Your task to perform on an android device: Go to accessibility settings Image 0: 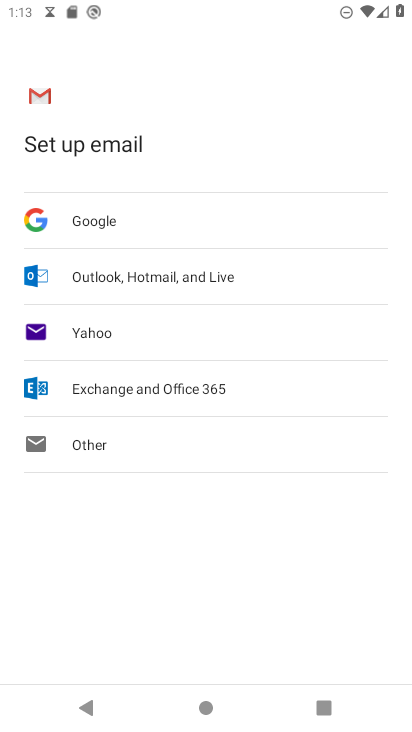
Step 0: press back button
Your task to perform on an android device: Go to accessibility settings Image 1: 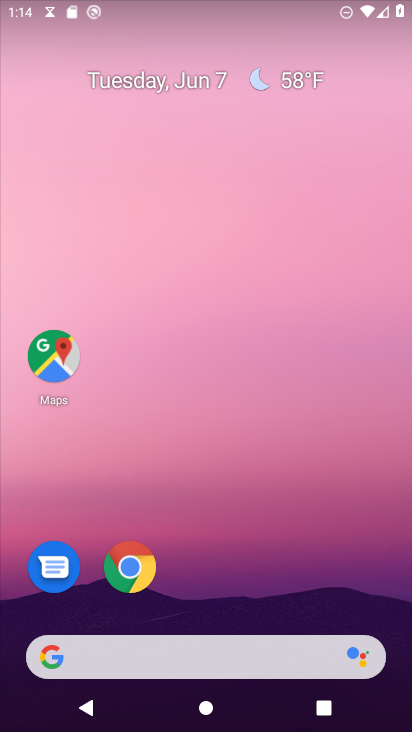
Step 1: drag from (404, 714) to (342, 2)
Your task to perform on an android device: Go to accessibility settings Image 2: 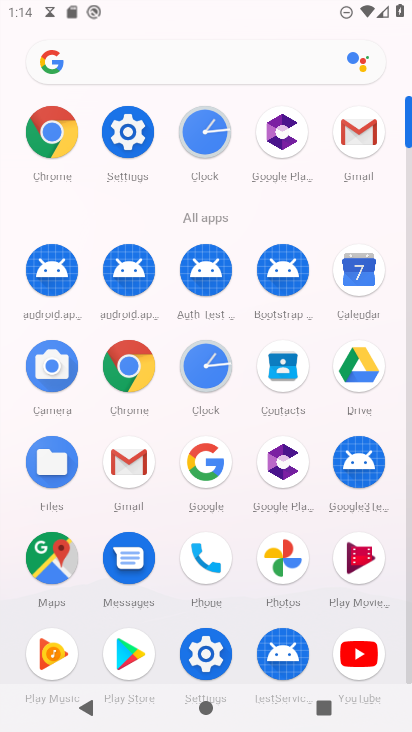
Step 2: click (213, 646)
Your task to perform on an android device: Go to accessibility settings Image 3: 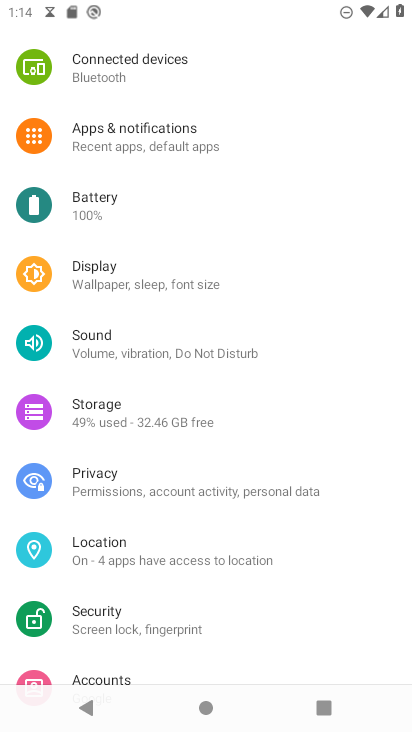
Step 3: click (292, 245)
Your task to perform on an android device: Go to accessibility settings Image 4: 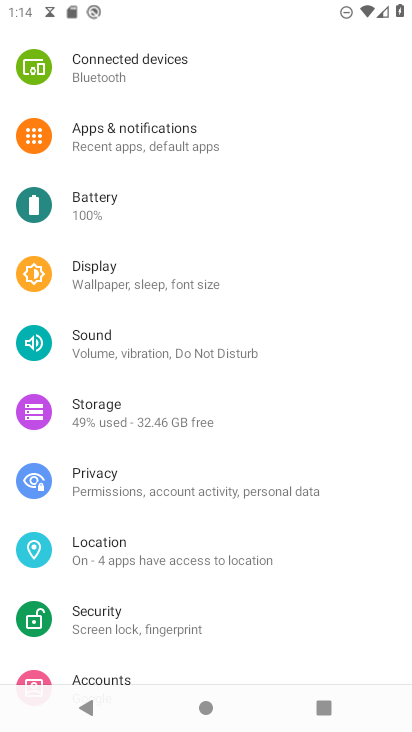
Step 4: drag from (324, 655) to (348, 271)
Your task to perform on an android device: Go to accessibility settings Image 5: 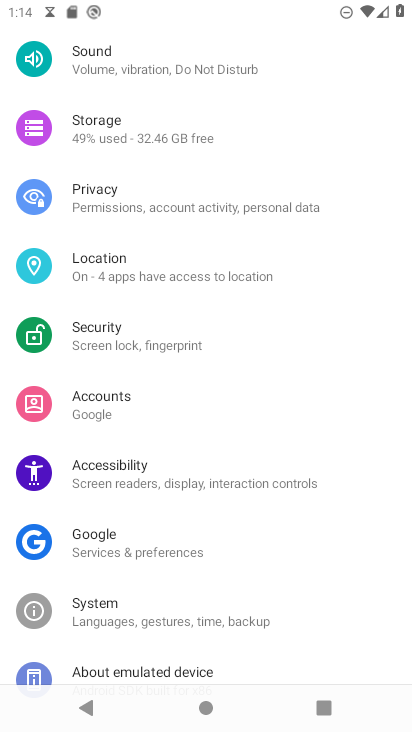
Step 5: drag from (347, 632) to (312, 140)
Your task to perform on an android device: Go to accessibility settings Image 6: 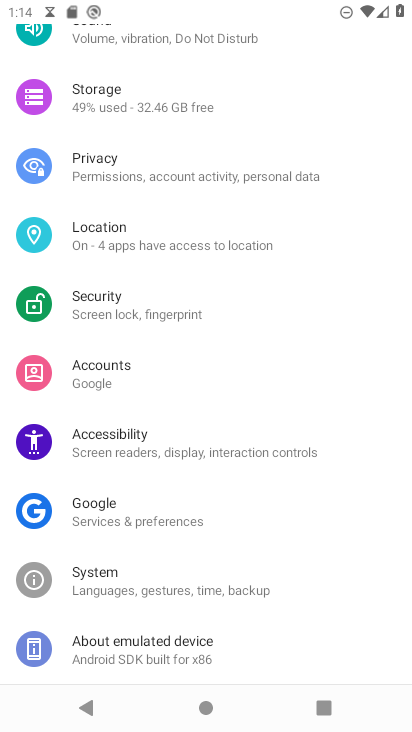
Step 6: click (105, 421)
Your task to perform on an android device: Go to accessibility settings Image 7: 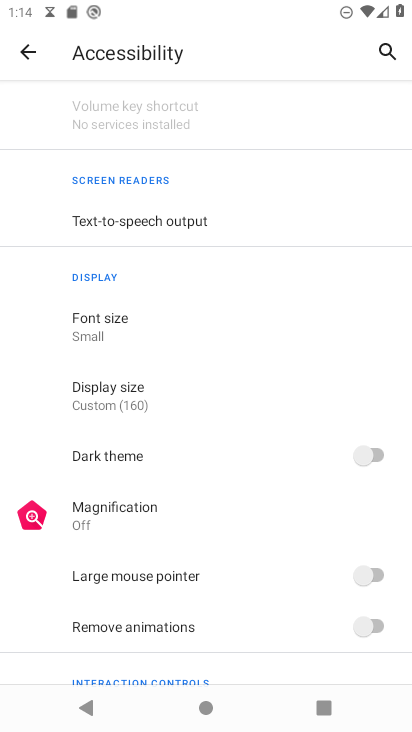
Step 7: task complete